Your task to perform on an android device: Go to Google Image 0: 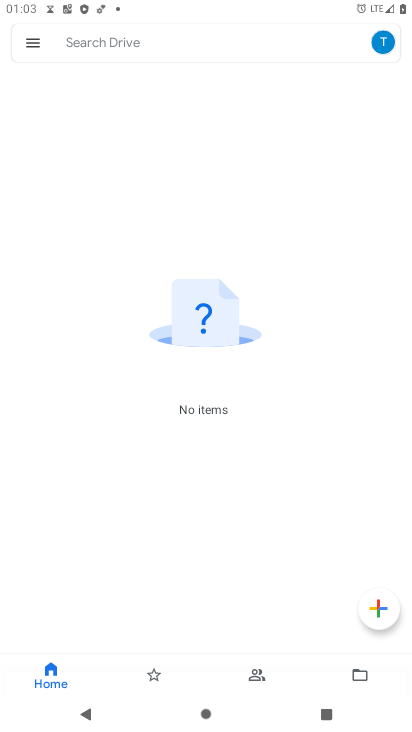
Step 0: press home button
Your task to perform on an android device: Go to Google Image 1: 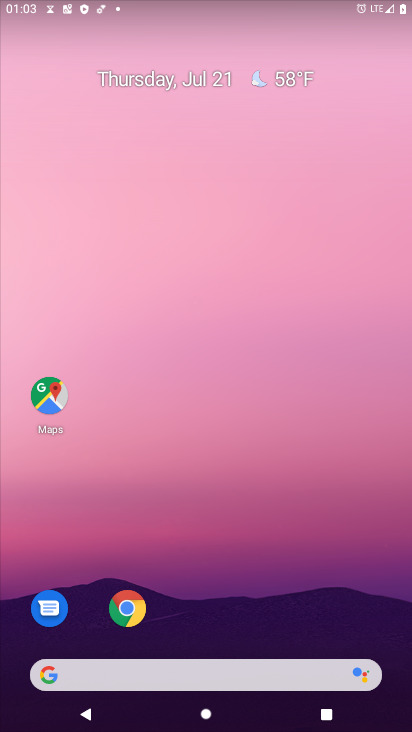
Step 1: drag from (204, 633) to (284, 29)
Your task to perform on an android device: Go to Google Image 2: 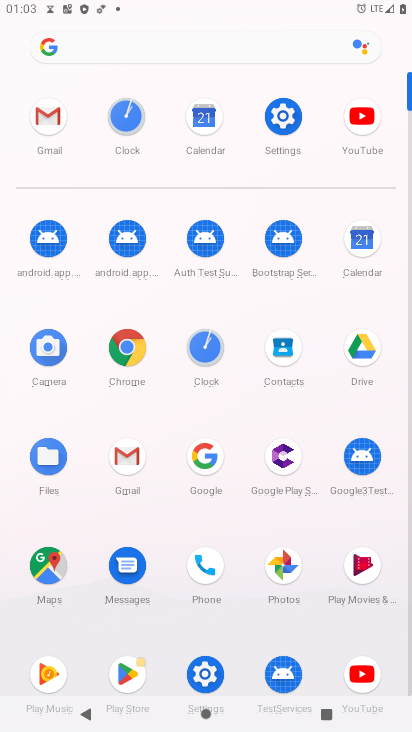
Step 2: click (201, 446)
Your task to perform on an android device: Go to Google Image 3: 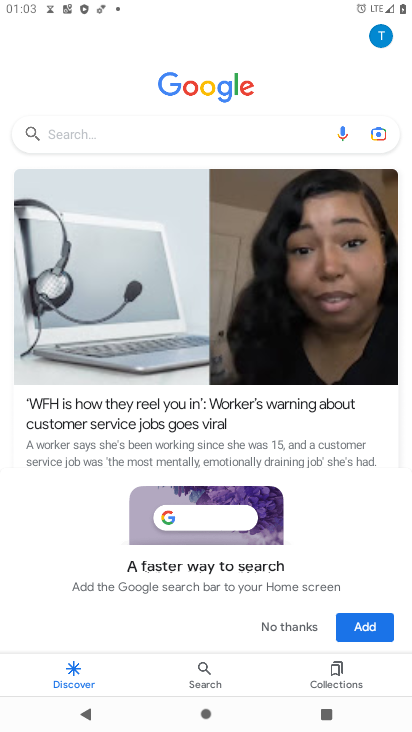
Step 3: click (285, 621)
Your task to perform on an android device: Go to Google Image 4: 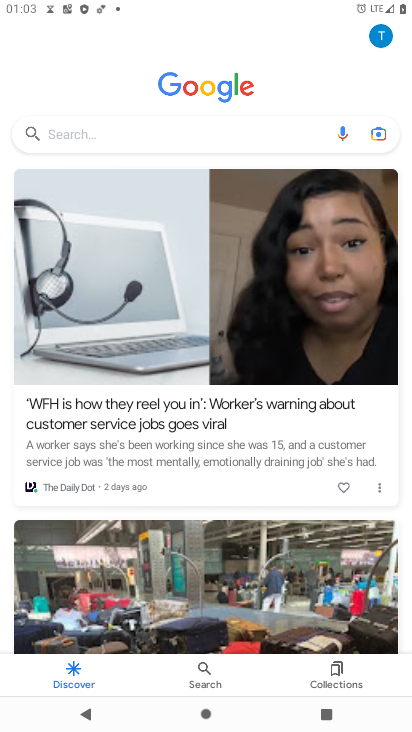
Step 4: task complete